Your task to perform on an android device: turn off picture-in-picture Image 0: 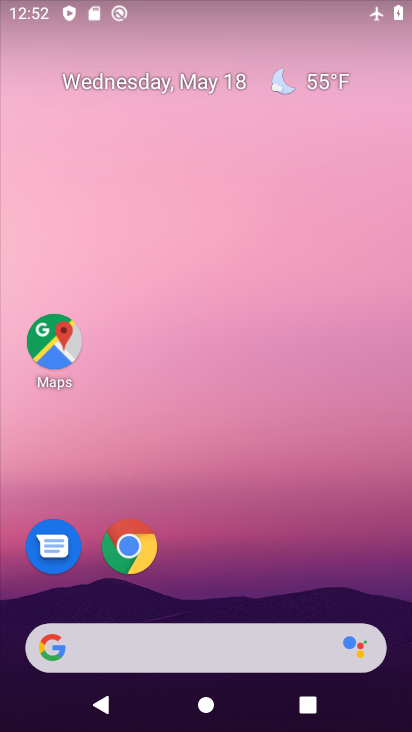
Step 0: drag from (371, 534) to (342, 121)
Your task to perform on an android device: turn off picture-in-picture Image 1: 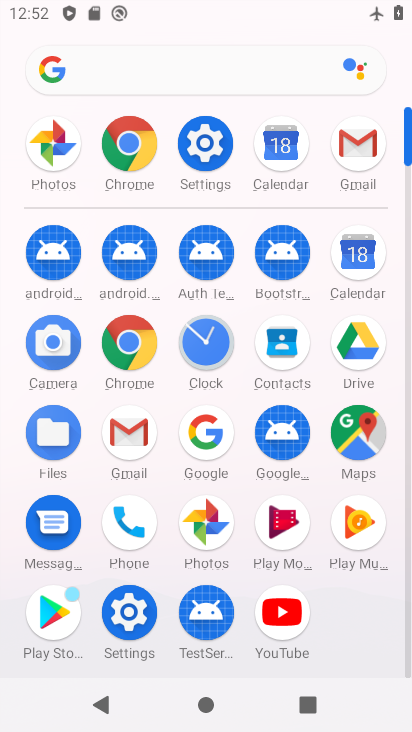
Step 1: click (130, 604)
Your task to perform on an android device: turn off picture-in-picture Image 2: 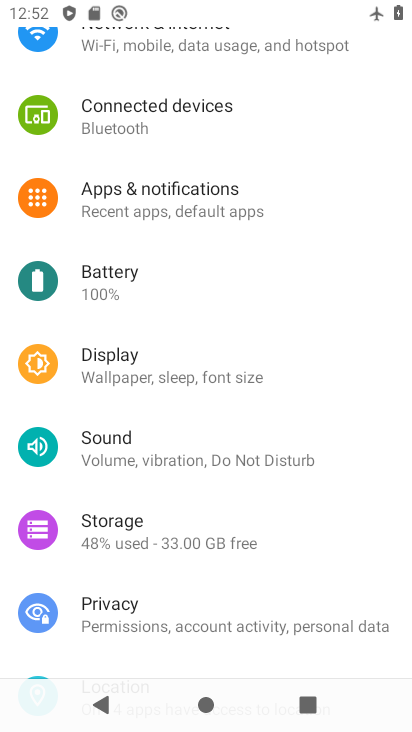
Step 2: click (226, 210)
Your task to perform on an android device: turn off picture-in-picture Image 3: 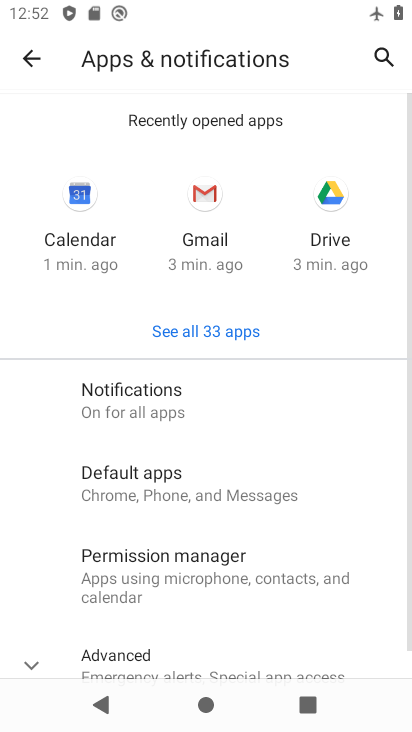
Step 3: drag from (335, 621) to (357, 299)
Your task to perform on an android device: turn off picture-in-picture Image 4: 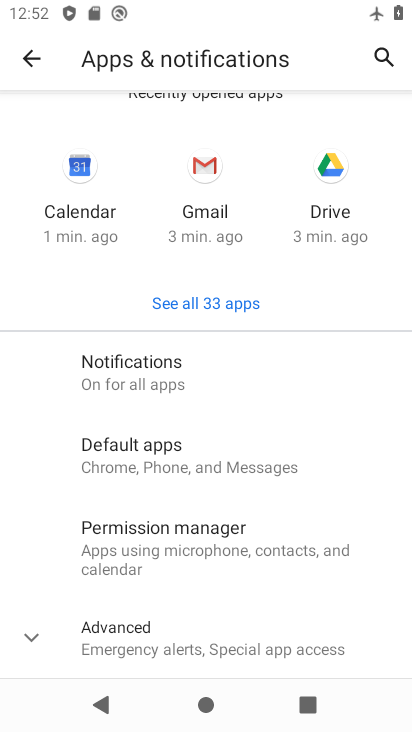
Step 4: click (288, 648)
Your task to perform on an android device: turn off picture-in-picture Image 5: 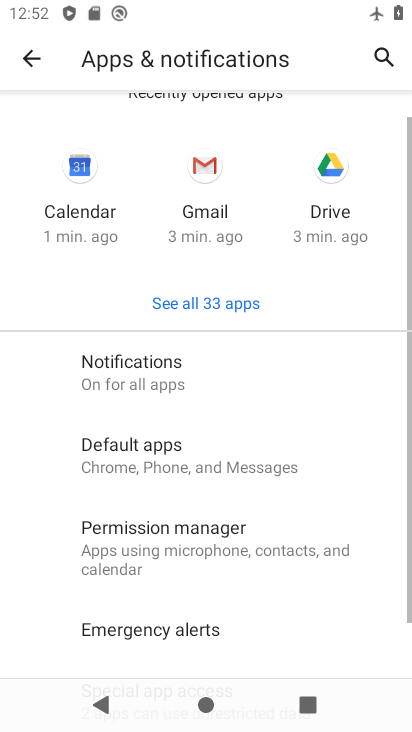
Step 5: drag from (238, 638) to (300, 341)
Your task to perform on an android device: turn off picture-in-picture Image 6: 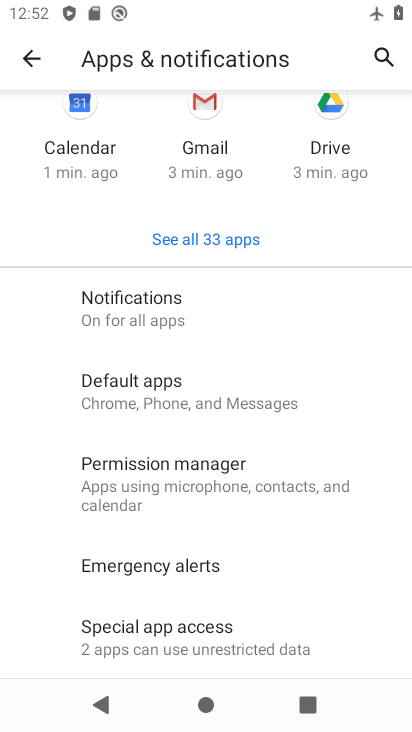
Step 6: click (234, 633)
Your task to perform on an android device: turn off picture-in-picture Image 7: 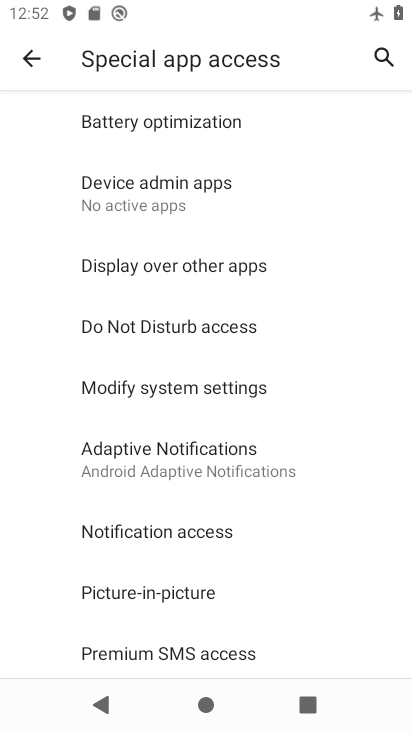
Step 7: click (241, 599)
Your task to perform on an android device: turn off picture-in-picture Image 8: 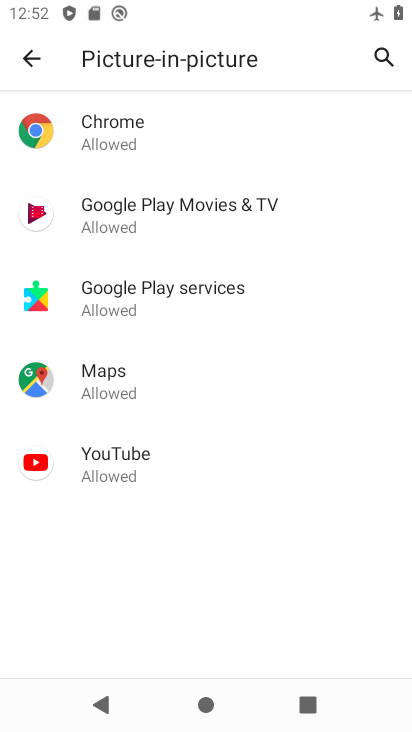
Step 8: click (235, 132)
Your task to perform on an android device: turn off picture-in-picture Image 9: 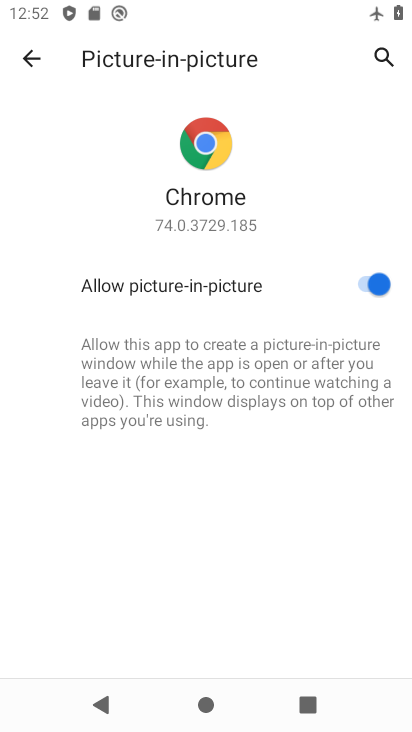
Step 9: click (377, 286)
Your task to perform on an android device: turn off picture-in-picture Image 10: 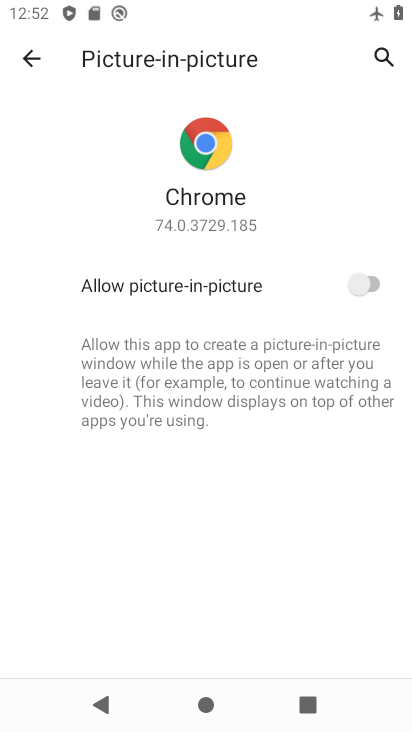
Step 10: task complete